Your task to perform on an android device: toggle priority inbox in the gmail app Image 0: 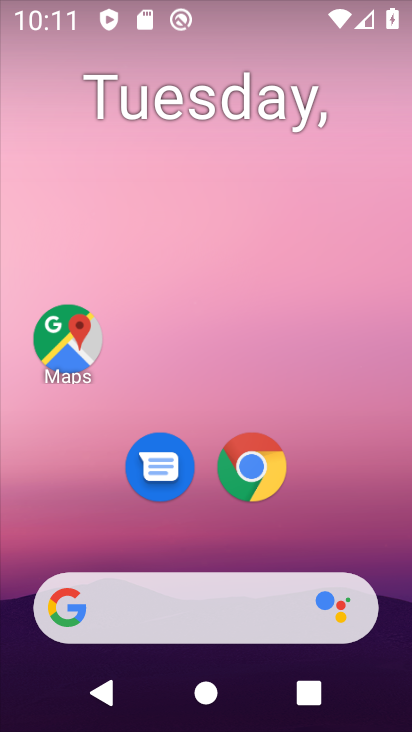
Step 0: drag from (408, 567) to (310, 126)
Your task to perform on an android device: toggle priority inbox in the gmail app Image 1: 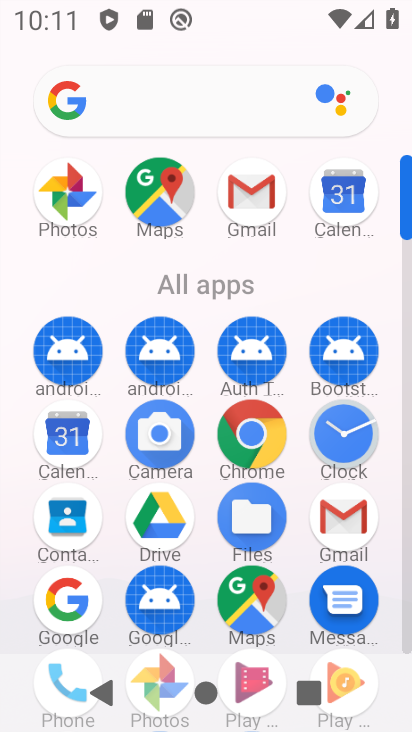
Step 1: click (401, 649)
Your task to perform on an android device: toggle priority inbox in the gmail app Image 2: 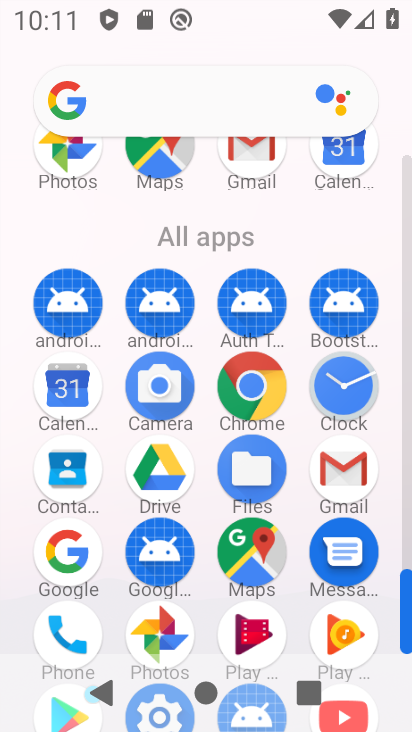
Step 2: click (343, 445)
Your task to perform on an android device: toggle priority inbox in the gmail app Image 3: 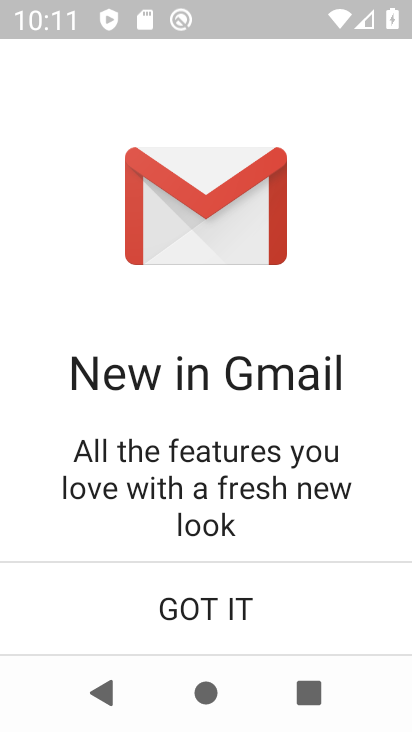
Step 3: click (231, 618)
Your task to perform on an android device: toggle priority inbox in the gmail app Image 4: 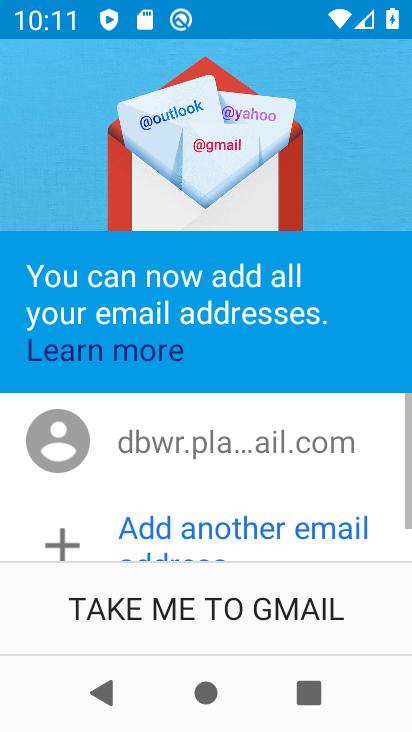
Step 4: click (231, 618)
Your task to perform on an android device: toggle priority inbox in the gmail app Image 5: 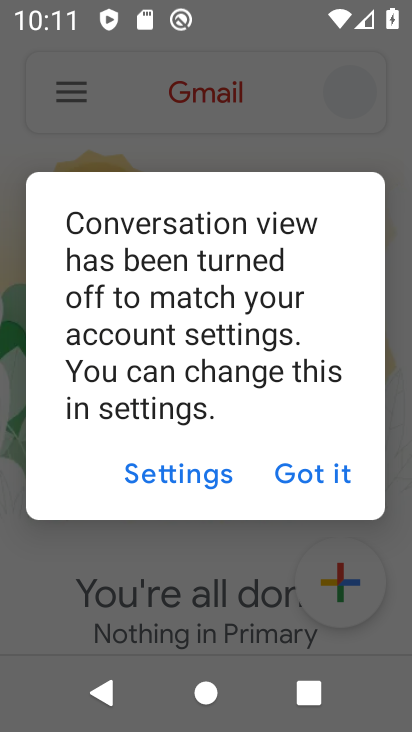
Step 5: click (318, 467)
Your task to perform on an android device: toggle priority inbox in the gmail app Image 6: 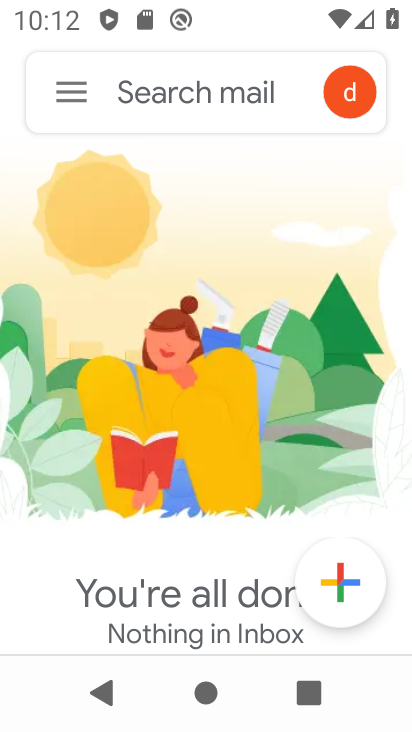
Step 6: click (71, 112)
Your task to perform on an android device: toggle priority inbox in the gmail app Image 7: 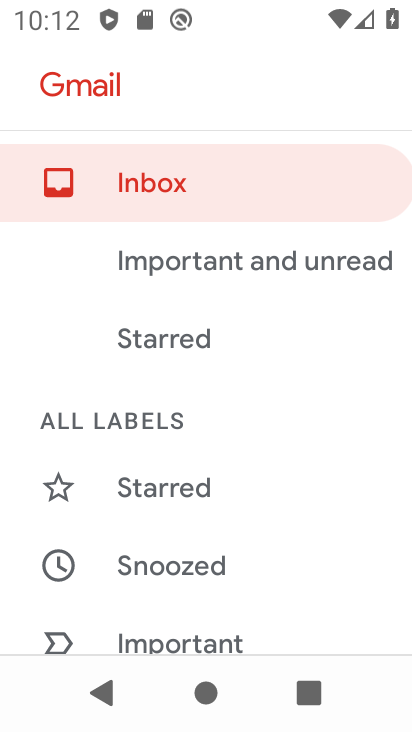
Step 7: drag from (199, 614) to (195, 182)
Your task to perform on an android device: toggle priority inbox in the gmail app Image 8: 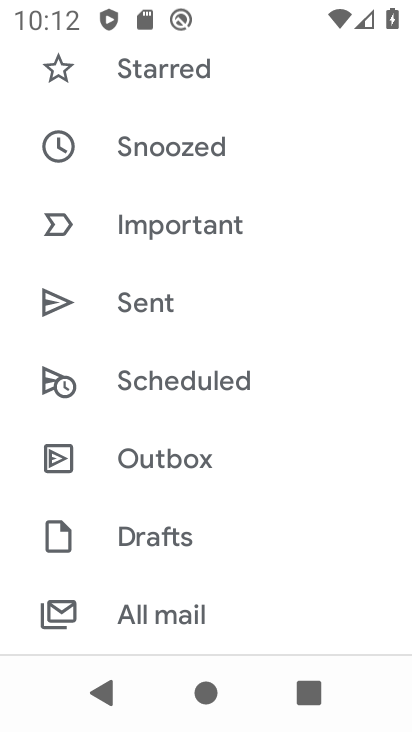
Step 8: drag from (226, 586) to (175, 152)
Your task to perform on an android device: toggle priority inbox in the gmail app Image 9: 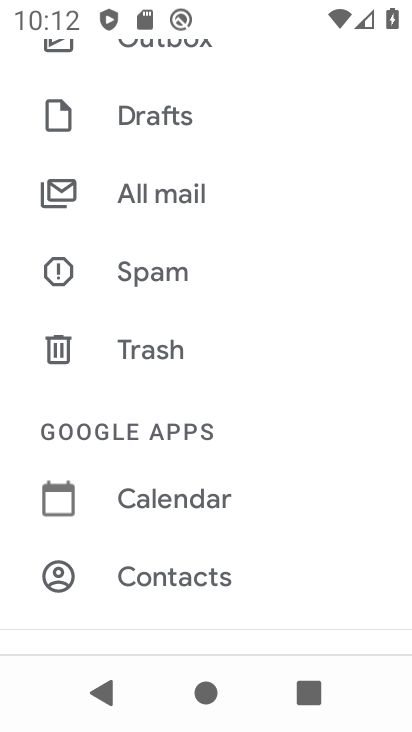
Step 9: drag from (174, 524) to (172, 209)
Your task to perform on an android device: toggle priority inbox in the gmail app Image 10: 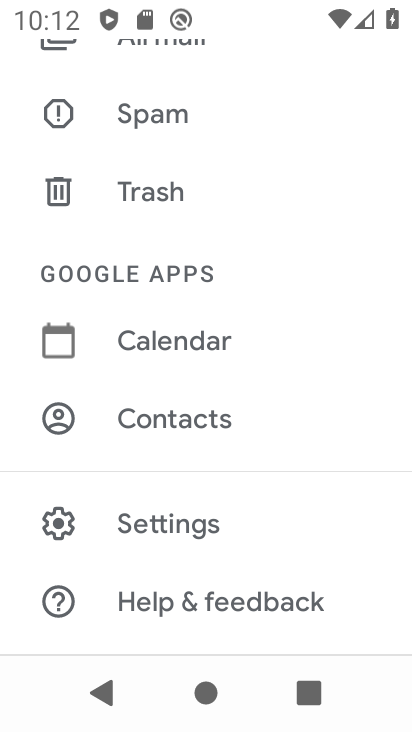
Step 10: click (190, 542)
Your task to perform on an android device: toggle priority inbox in the gmail app Image 11: 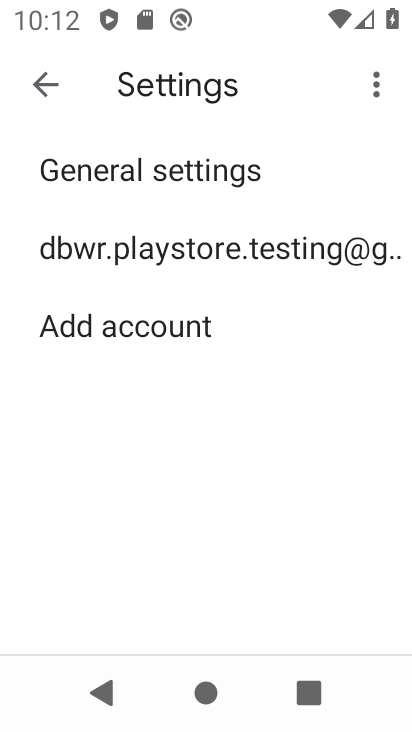
Step 11: click (171, 272)
Your task to perform on an android device: toggle priority inbox in the gmail app Image 12: 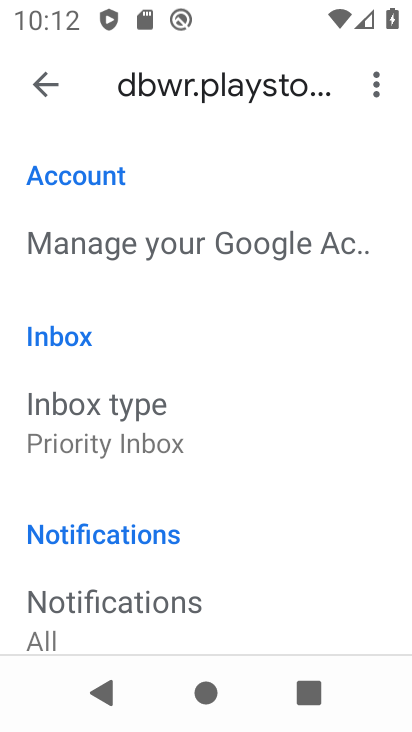
Step 12: click (174, 407)
Your task to perform on an android device: toggle priority inbox in the gmail app Image 13: 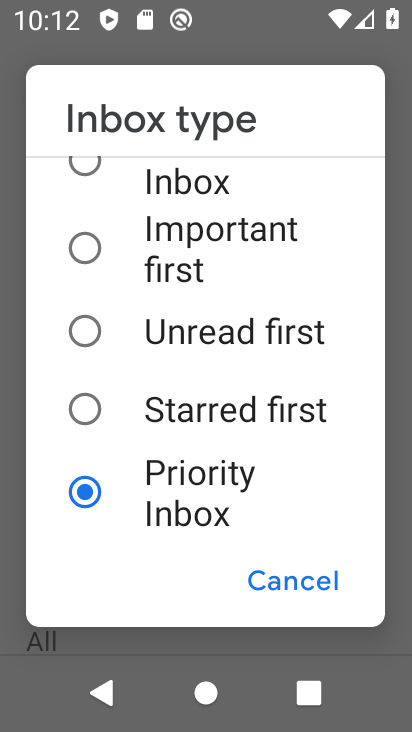
Step 13: click (210, 228)
Your task to perform on an android device: toggle priority inbox in the gmail app Image 14: 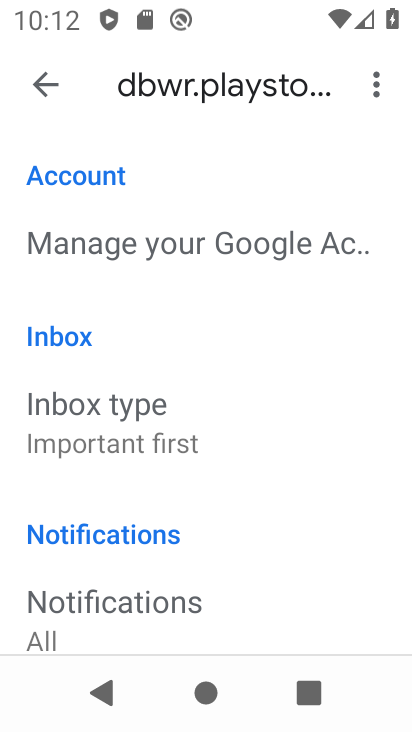
Step 14: task complete